Your task to perform on an android device: uninstall "Microsoft Authenticator" Image 0: 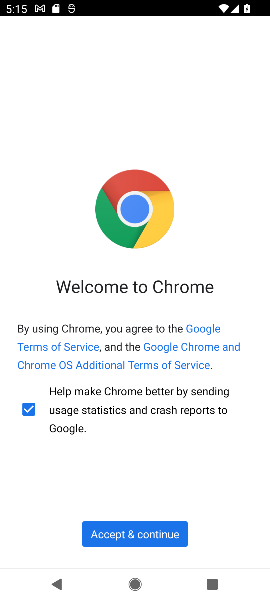
Step 0: press home button
Your task to perform on an android device: uninstall "Microsoft Authenticator" Image 1: 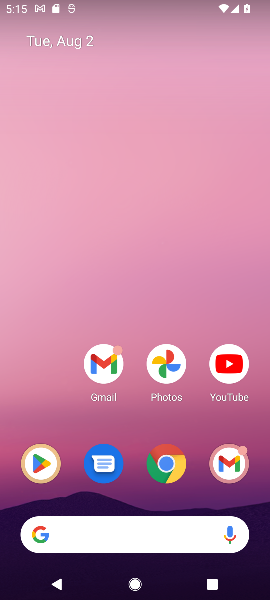
Step 1: click (27, 465)
Your task to perform on an android device: uninstall "Microsoft Authenticator" Image 2: 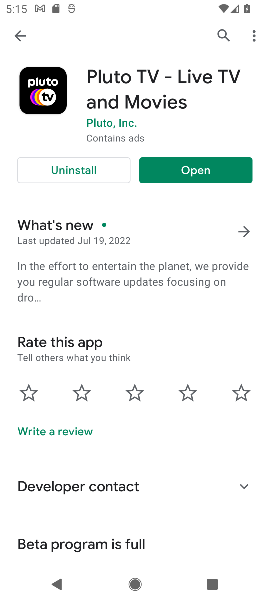
Step 2: click (213, 28)
Your task to perform on an android device: uninstall "Microsoft Authenticator" Image 3: 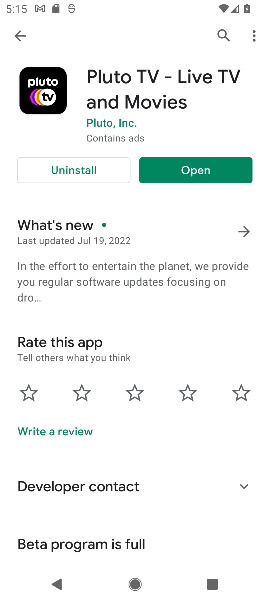
Step 3: click (221, 31)
Your task to perform on an android device: uninstall "Microsoft Authenticator" Image 4: 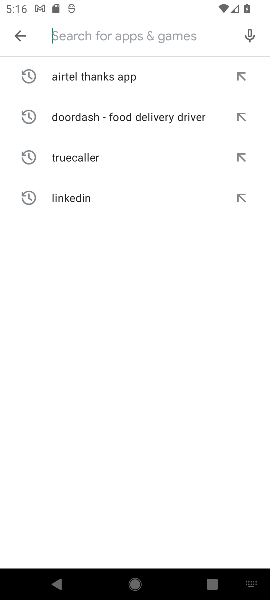
Step 4: type "Microsoft Authenticator"
Your task to perform on an android device: uninstall "Microsoft Authenticator" Image 5: 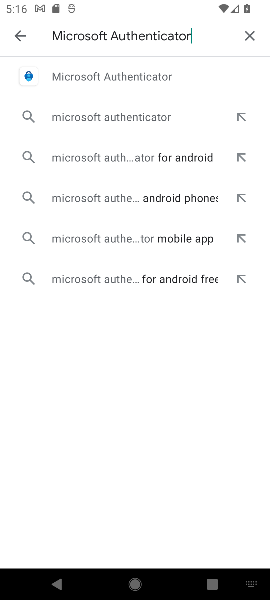
Step 5: click (138, 75)
Your task to perform on an android device: uninstall "Microsoft Authenticator" Image 6: 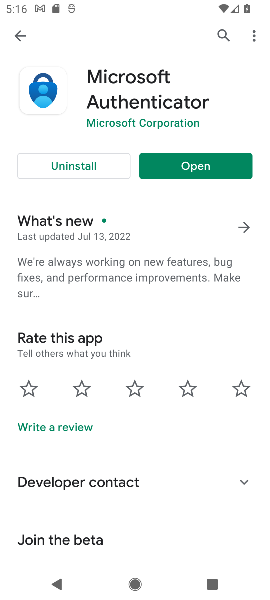
Step 6: click (88, 162)
Your task to perform on an android device: uninstall "Microsoft Authenticator" Image 7: 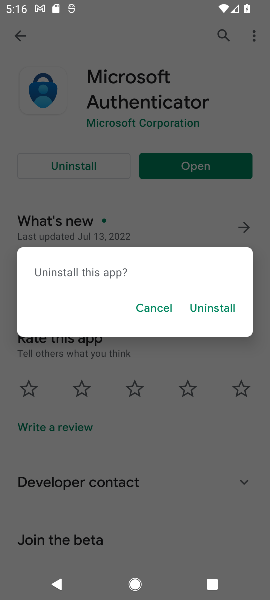
Step 7: click (200, 309)
Your task to perform on an android device: uninstall "Microsoft Authenticator" Image 8: 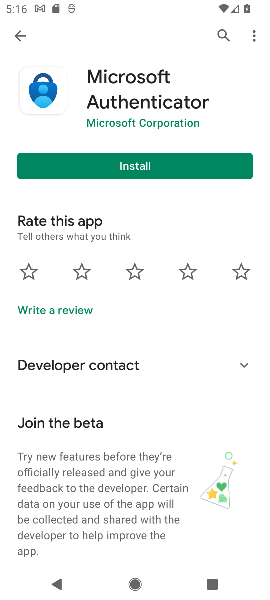
Step 8: task complete